Your task to perform on an android device: Go to eBay Image 0: 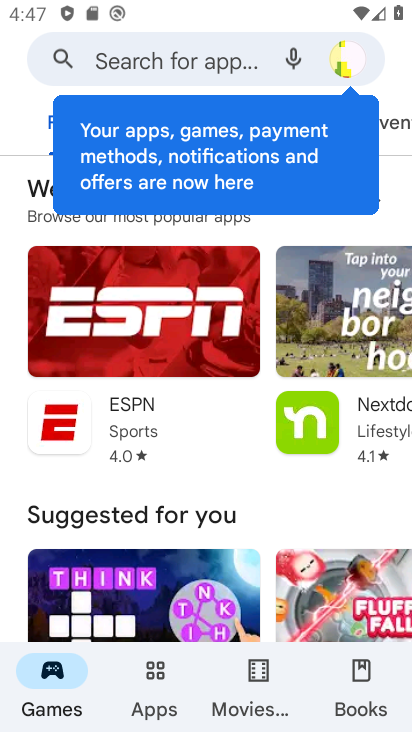
Step 0: press back button
Your task to perform on an android device: Go to eBay Image 1: 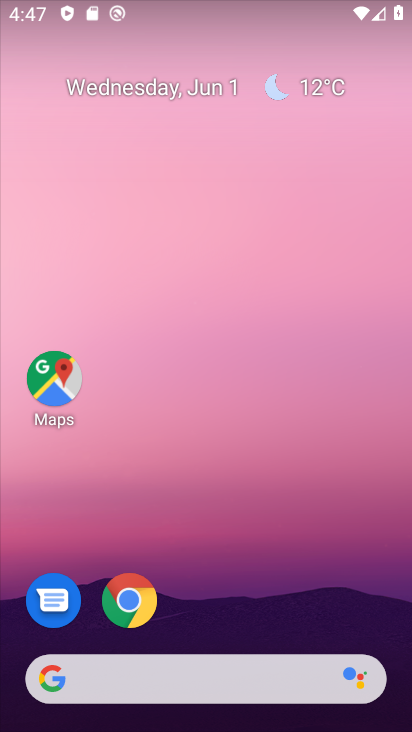
Step 1: click (128, 601)
Your task to perform on an android device: Go to eBay Image 2: 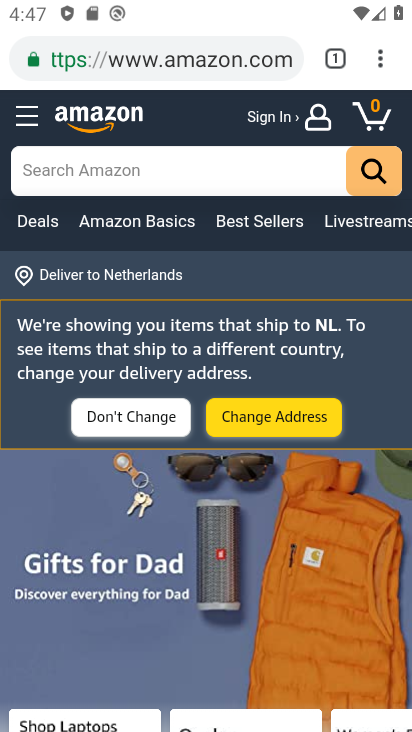
Step 2: click (275, 59)
Your task to perform on an android device: Go to eBay Image 3: 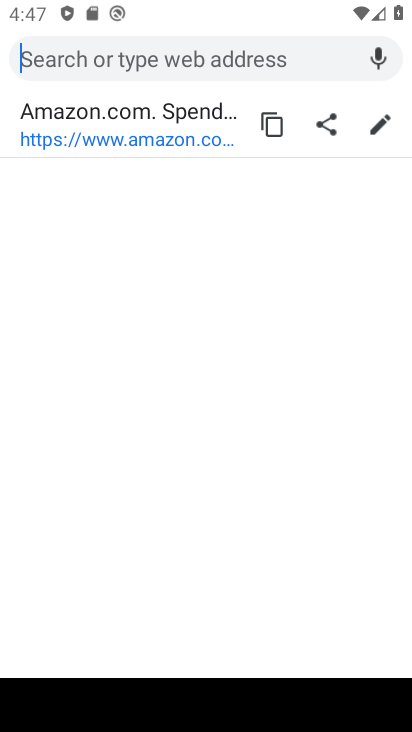
Step 3: type "eBay"
Your task to perform on an android device: Go to eBay Image 4: 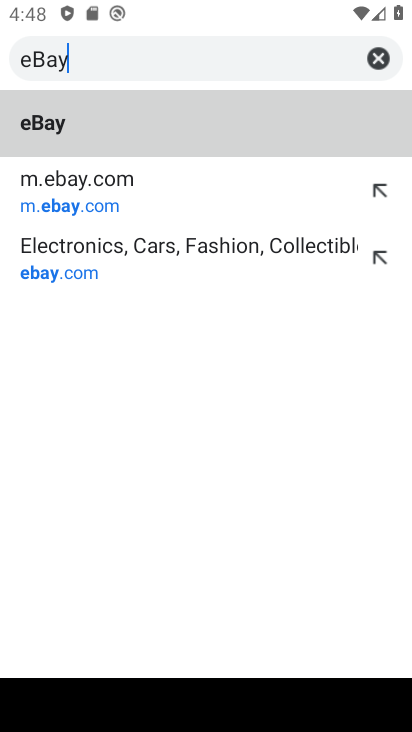
Step 4: click (113, 195)
Your task to perform on an android device: Go to eBay Image 5: 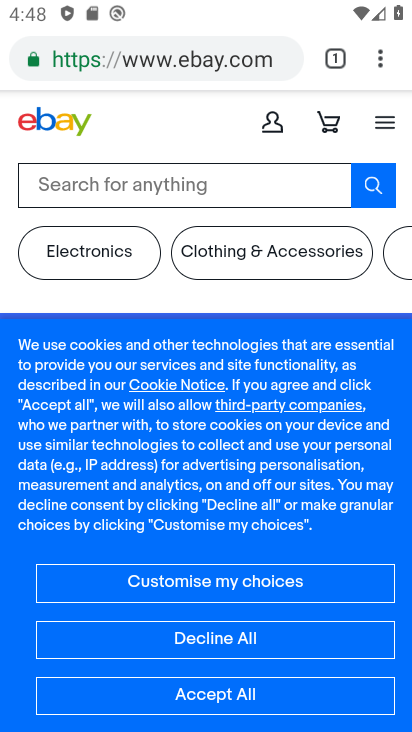
Step 5: task complete